Your task to perform on an android device: Search for vegetarian restaurants on Maps Image 0: 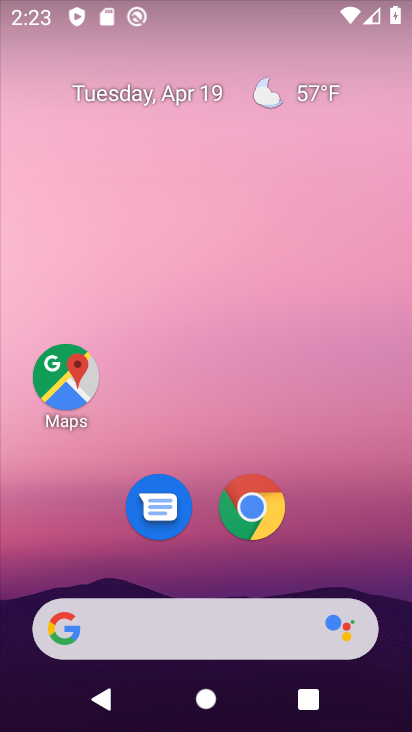
Step 0: click (72, 379)
Your task to perform on an android device: Search for vegetarian restaurants on Maps Image 1: 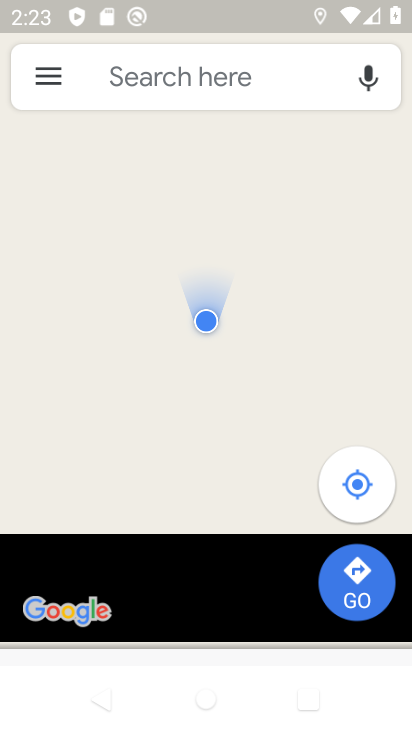
Step 1: click (168, 80)
Your task to perform on an android device: Search for vegetarian restaurants on Maps Image 2: 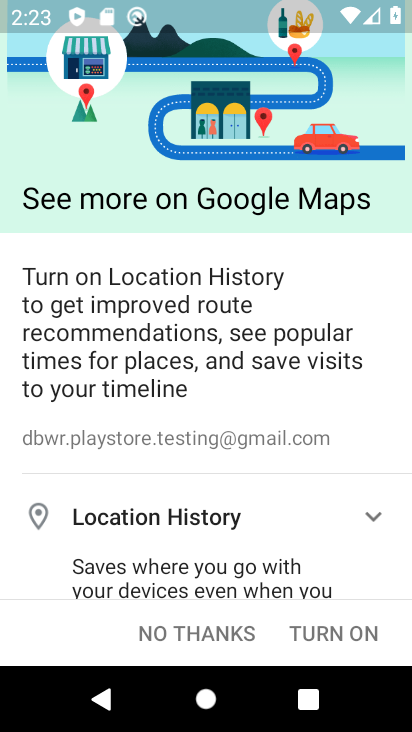
Step 2: click (338, 617)
Your task to perform on an android device: Search for vegetarian restaurants on Maps Image 3: 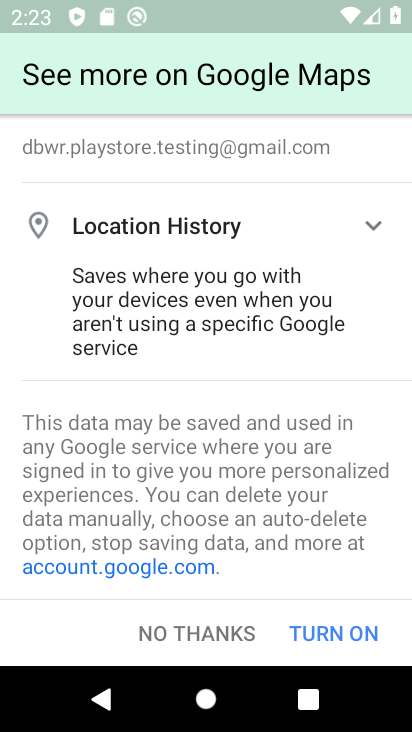
Step 3: click (345, 630)
Your task to perform on an android device: Search for vegetarian restaurants on Maps Image 4: 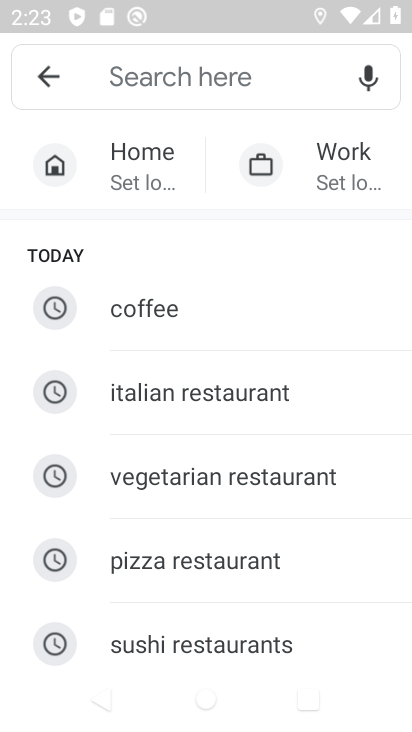
Step 4: click (217, 87)
Your task to perform on an android device: Search for vegetarian restaurants on Maps Image 5: 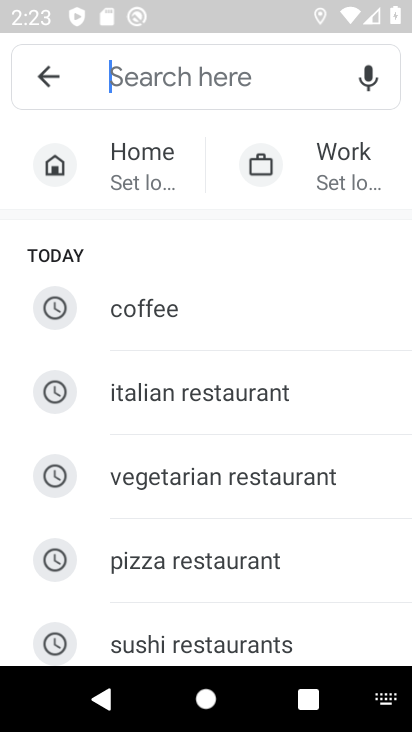
Step 5: type "vegetarian restaurants"
Your task to perform on an android device: Search for vegetarian restaurants on Maps Image 6: 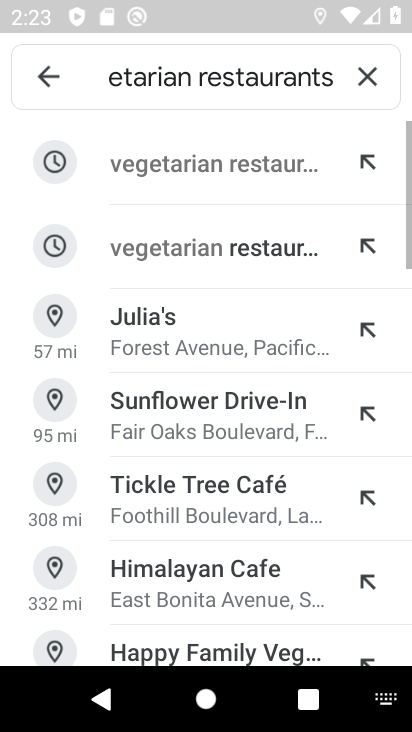
Step 6: task complete